Your task to perform on an android device: Open location settings Image 0: 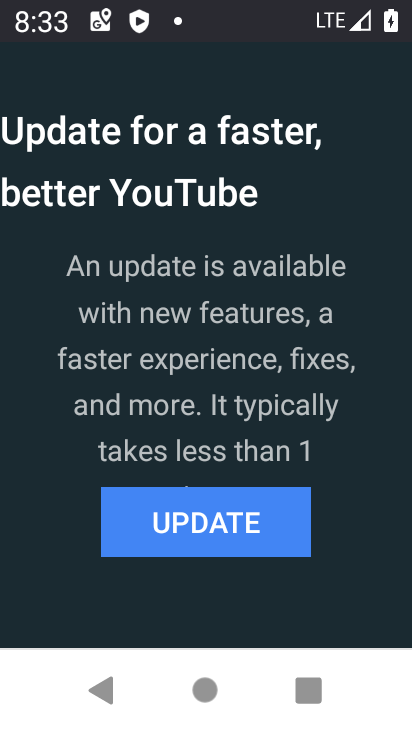
Step 0: press back button
Your task to perform on an android device: Open location settings Image 1: 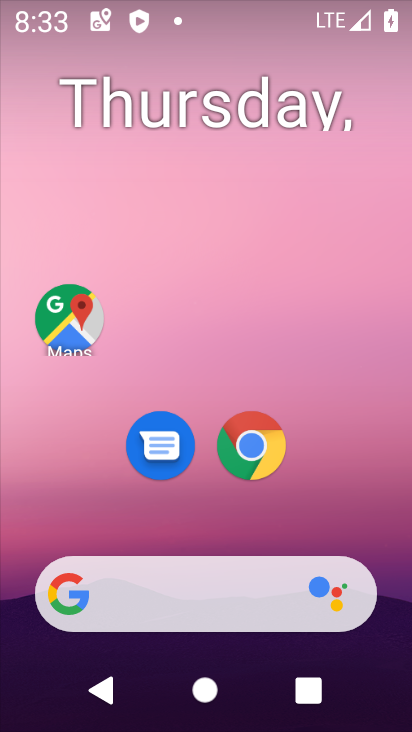
Step 1: drag from (368, 650) to (306, 47)
Your task to perform on an android device: Open location settings Image 2: 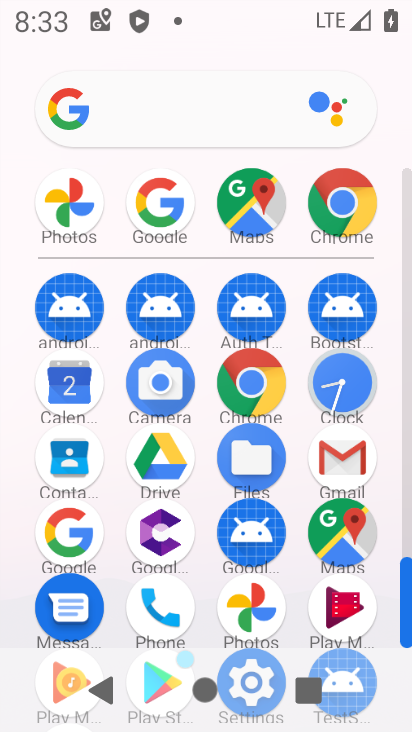
Step 2: drag from (292, 570) to (284, 250)
Your task to perform on an android device: Open location settings Image 3: 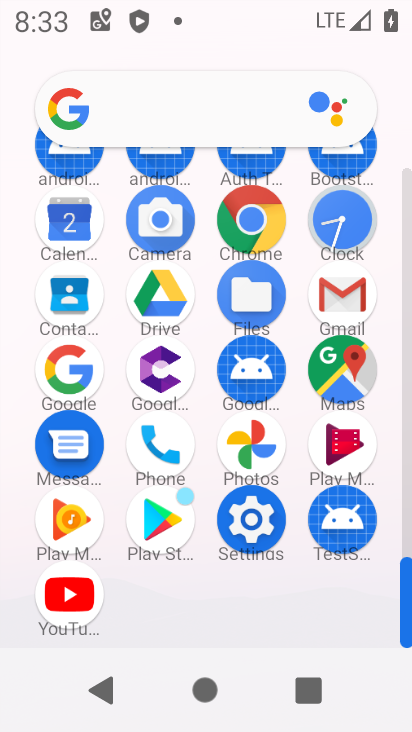
Step 3: click (283, 233)
Your task to perform on an android device: Open location settings Image 4: 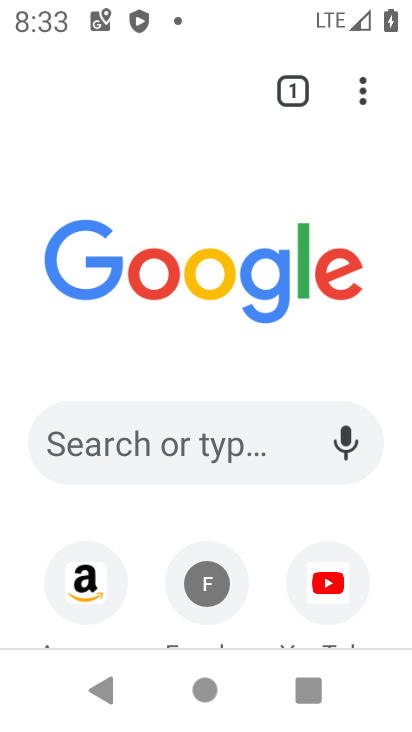
Step 4: press home button
Your task to perform on an android device: Open location settings Image 5: 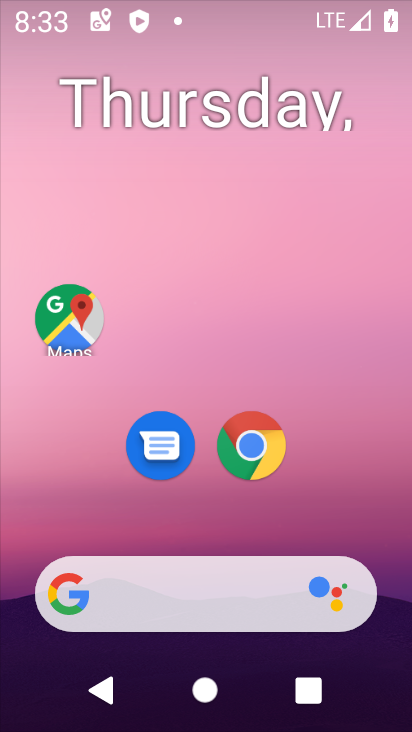
Step 5: click (392, 629)
Your task to perform on an android device: Open location settings Image 6: 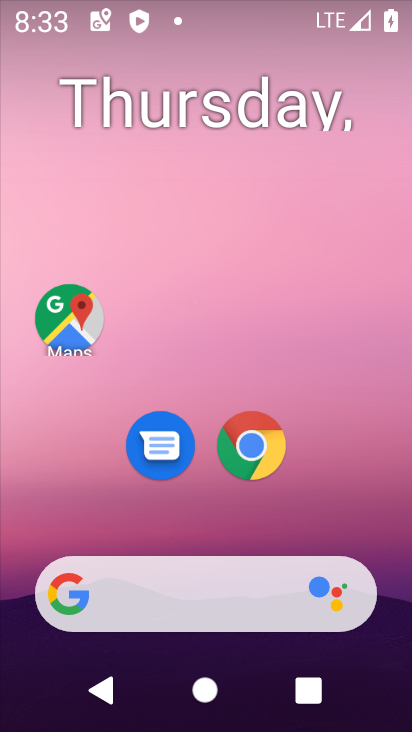
Step 6: drag from (373, 440) to (283, 40)
Your task to perform on an android device: Open location settings Image 7: 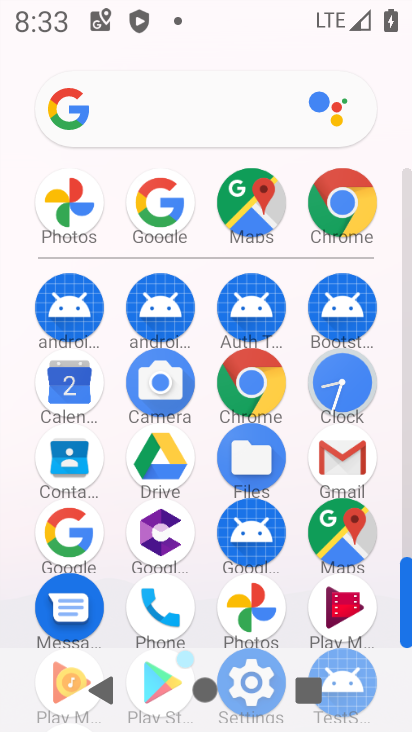
Step 7: drag from (197, 620) to (197, 299)
Your task to perform on an android device: Open location settings Image 8: 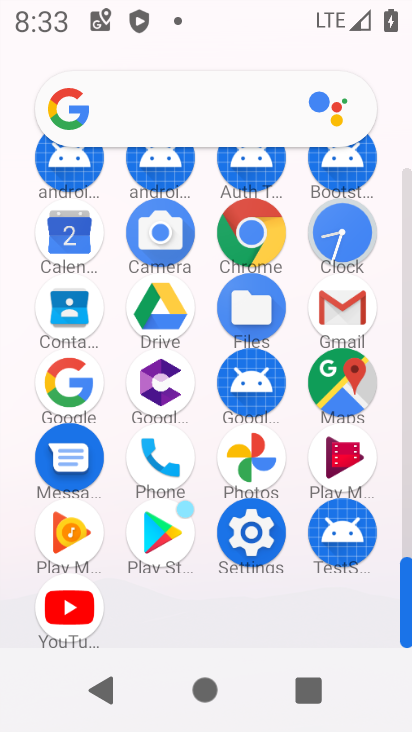
Step 8: click (242, 540)
Your task to perform on an android device: Open location settings Image 9: 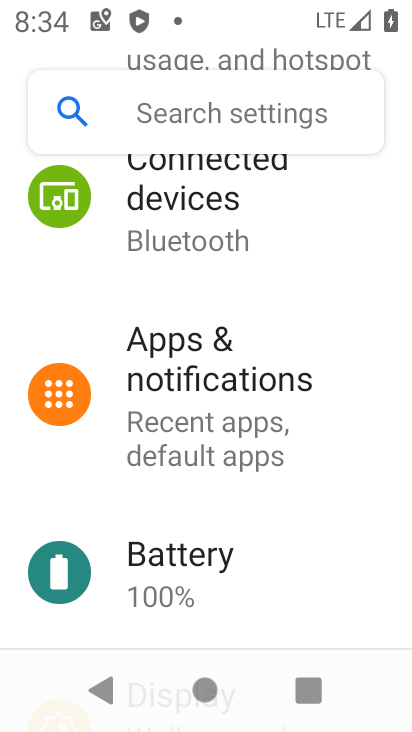
Step 9: drag from (218, 561) to (261, 325)
Your task to perform on an android device: Open location settings Image 10: 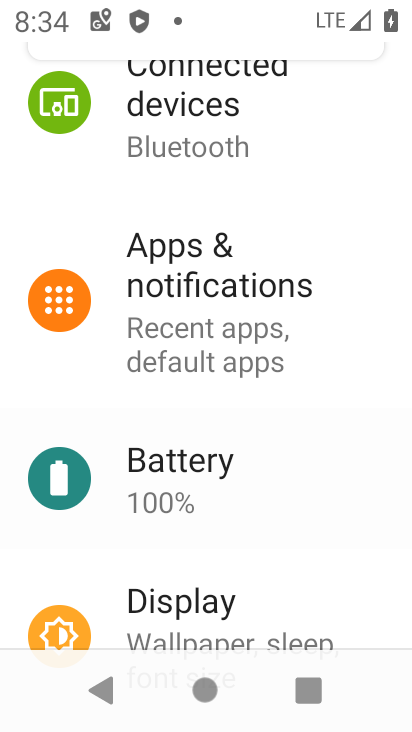
Step 10: drag from (256, 247) to (243, 170)
Your task to perform on an android device: Open location settings Image 11: 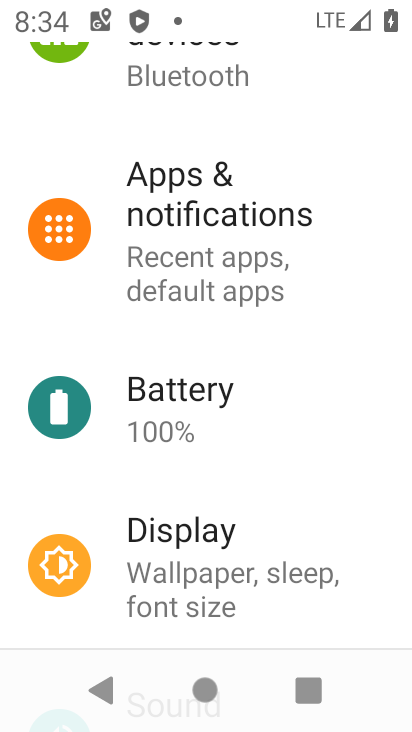
Step 11: drag from (203, 552) to (234, 127)
Your task to perform on an android device: Open location settings Image 12: 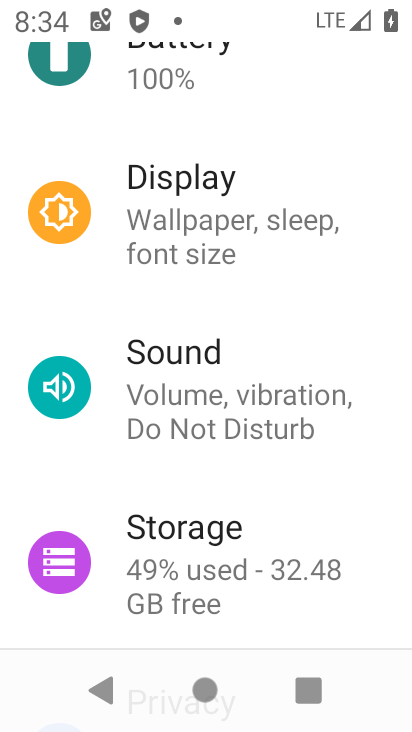
Step 12: drag from (234, 120) to (178, 624)
Your task to perform on an android device: Open location settings Image 13: 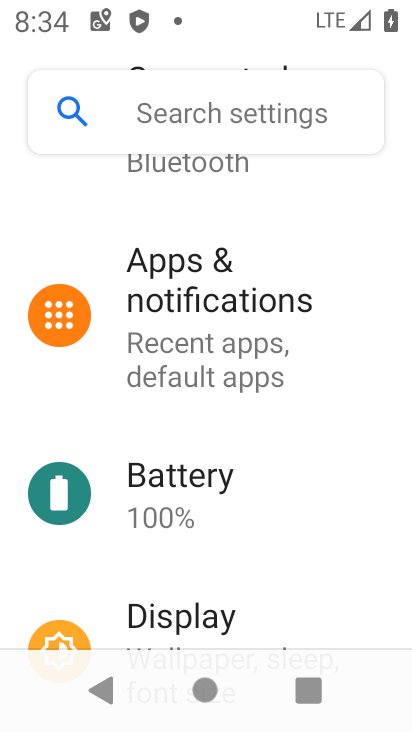
Step 13: drag from (153, 205) to (210, 610)
Your task to perform on an android device: Open location settings Image 14: 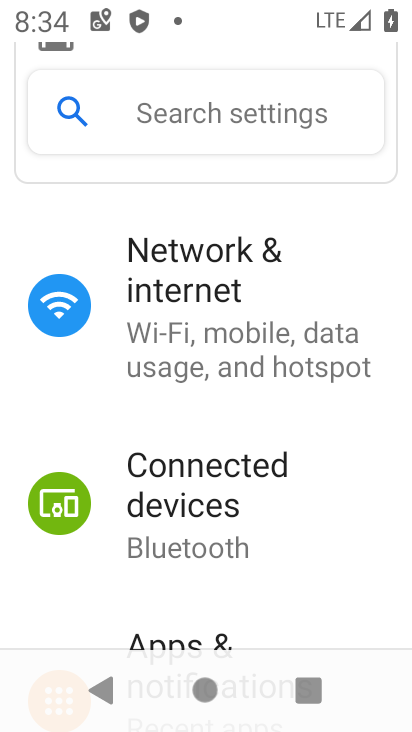
Step 14: drag from (158, 610) to (218, 85)
Your task to perform on an android device: Open location settings Image 15: 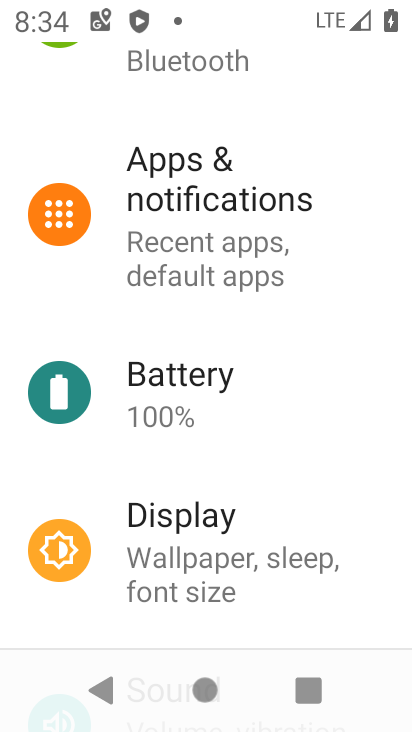
Step 15: drag from (142, 582) to (223, 81)
Your task to perform on an android device: Open location settings Image 16: 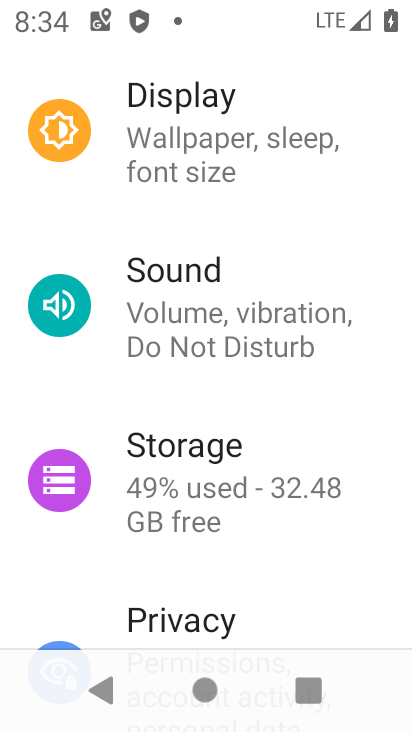
Step 16: drag from (154, 603) to (252, 159)
Your task to perform on an android device: Open location settings Image 17: 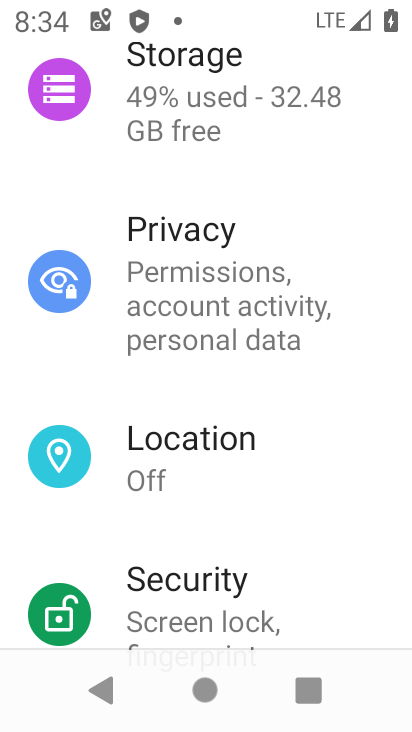
Step 17: click (245, 464)
Your task to perform on an android device: Open location settings Image 18: 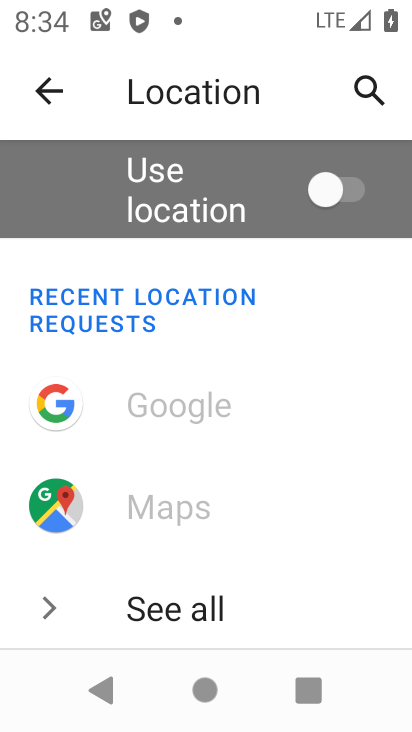
Step 18: task complete